Your task to perform on an android device: Go to Google Image 0: 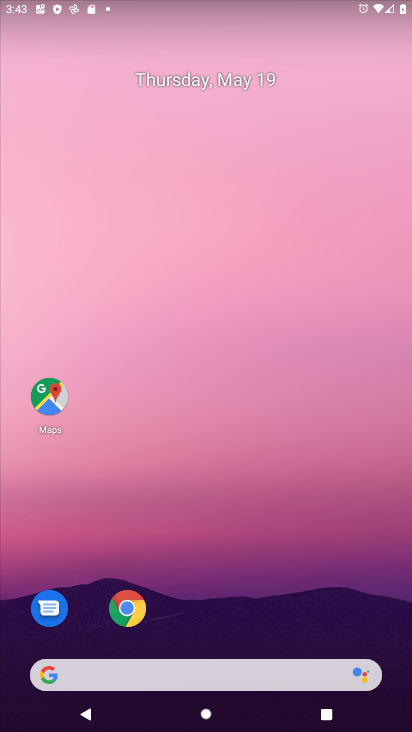
Step 0: drag from (229, 639) to (232, 230)
Your task to perform on an android device: Go to Google Image 1: 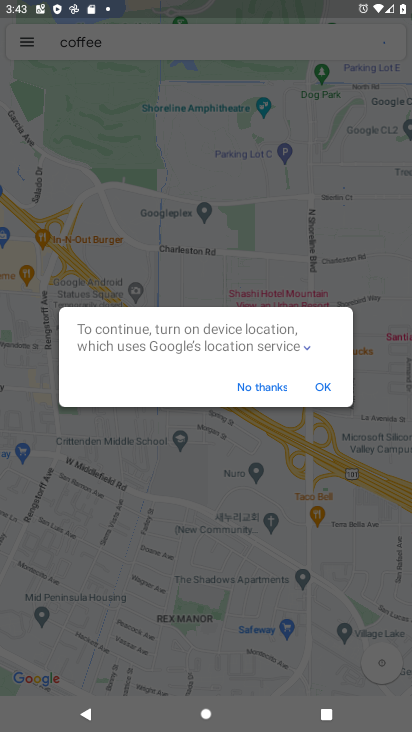
Step 1: press back button
Your task to perform on an android device: Go to Google Image 2: 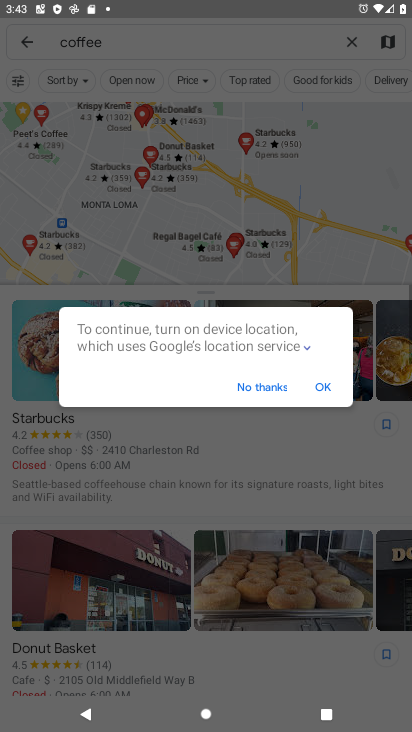
Step 2: click (330, 383)
Your task to perform on an android device: Go to Google Image 3: 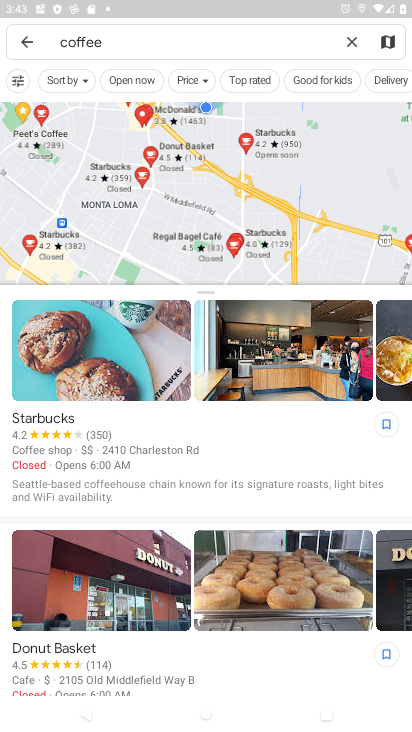
Step 3: press home button
Your task to perform on an android device: Go to Google Image 4: 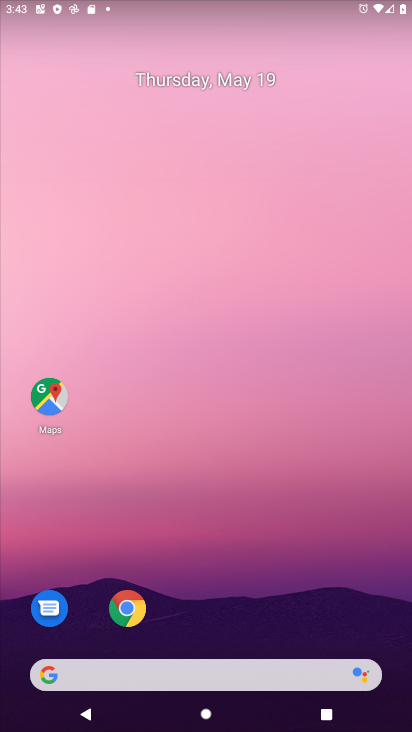
Step 4: click (131, 619)
Your task to perform on an android device: Go to Google Image 5: 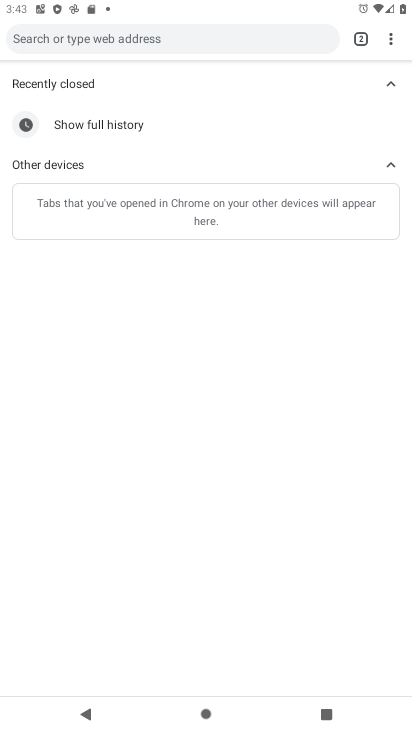
Step 5: click (237, 35)
Your task to perform on an android device: Go to Google Image 6: 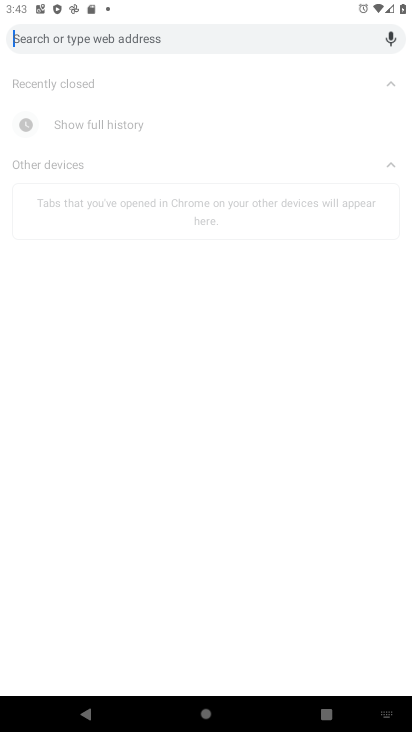
Step 6: type "google.com"
Your task to perform on an android device: Go to Google Image 7: 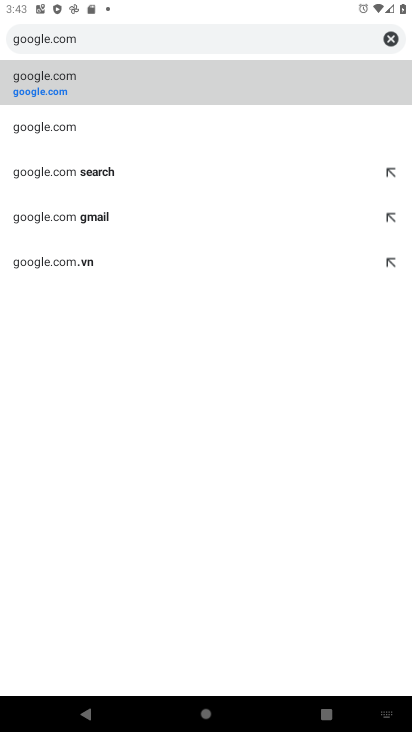
Step 7: click (169, 81)
Your task to perform on an android device: Go to Google Image 8: 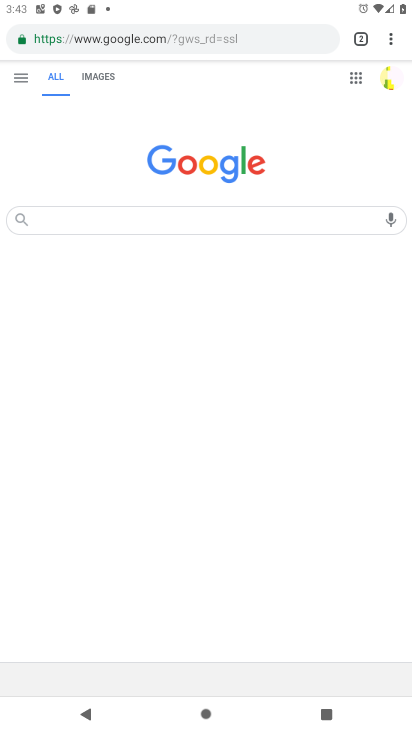
Step 8: task complete